Your task to perform on an android device: Open maps Image 0: 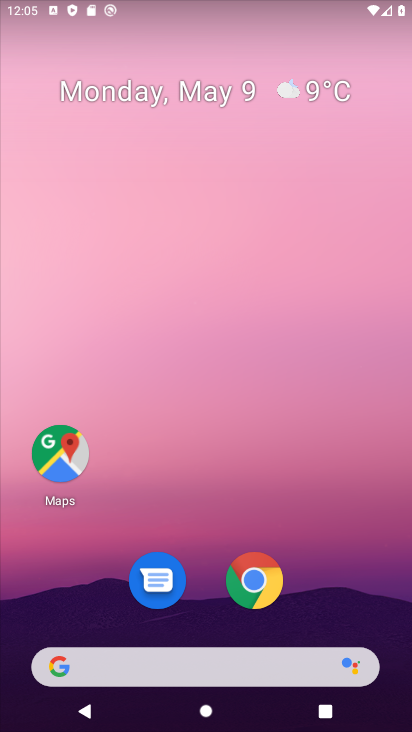
Step 0: click (64, 455)
Your task to perform on an android device: Open maps Image 1: 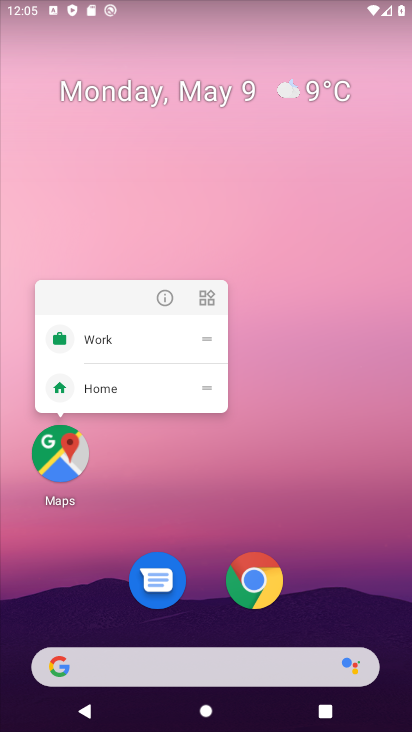
Step 1: click (42, 463)
Your task to perform on an android device: Open maps Image 2: 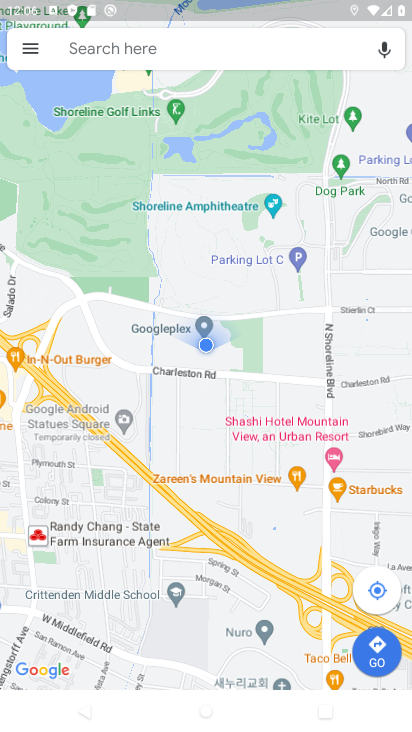
Step 2: task complete